Your task to perform on an android device: Open battery settings Image 0: 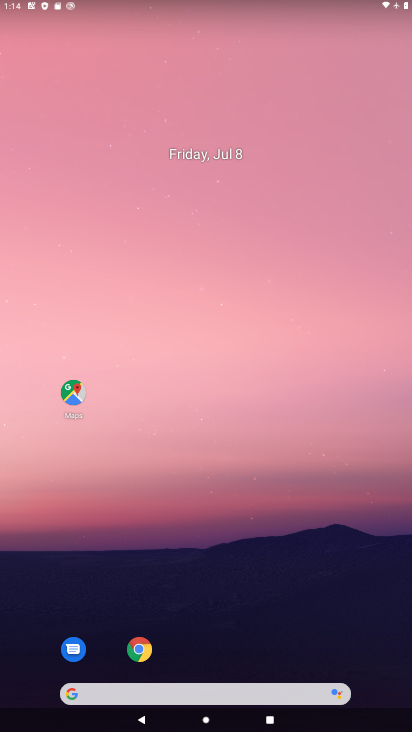
Step 0: drag from (25, 717) to (302, 99)
Your task to perform on an android device: Open battery settings Image 1: 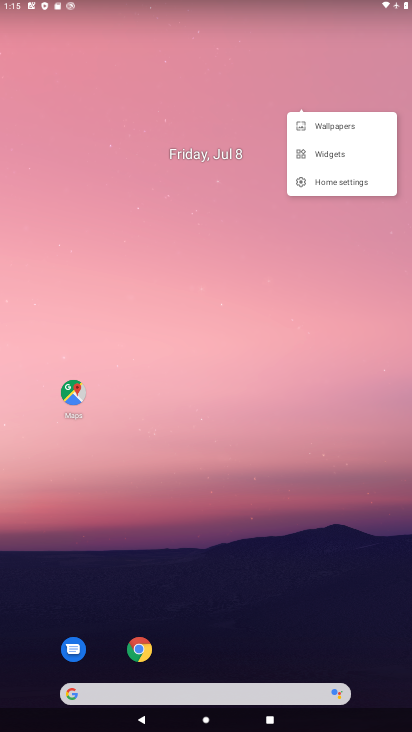
Step 1: drag from (43, 672) to (190, 319)
Your task to perform on an android device: Open battery settings Image 2: 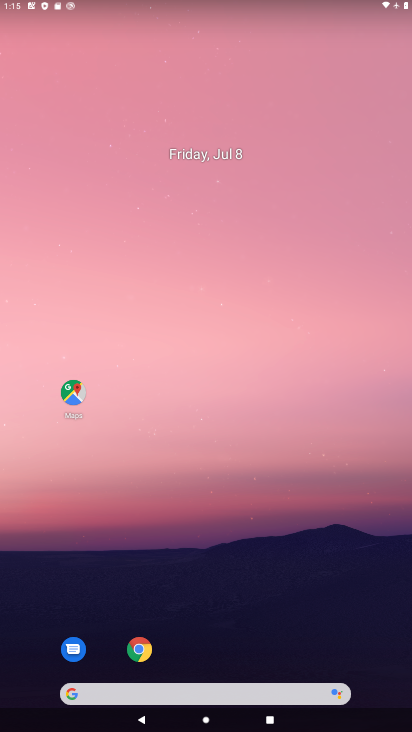
Step 2: drag from (38, 698) to (131, 133)
Your task to perform on an android device: Open battery settings Image 3: 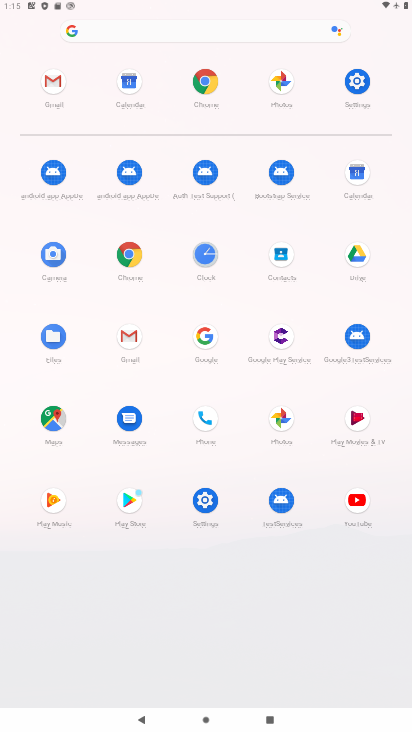
Step 3: click (183, 513)
Your task to perform on an android device: Open battery settings Image 4: 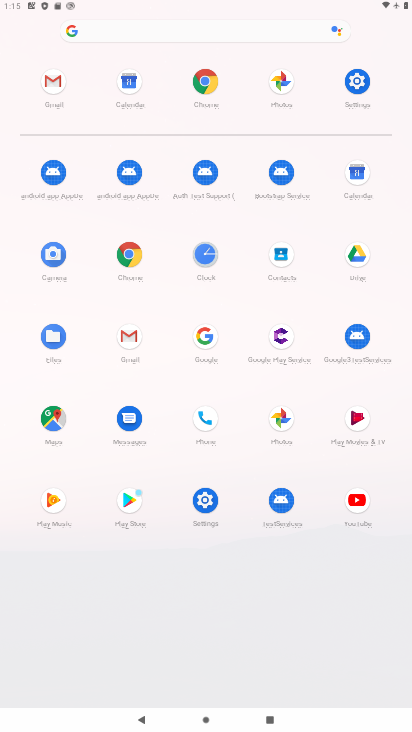
Step 4: click (195, 512)
Your task to perform on an android device: Open battery settings Image 5: 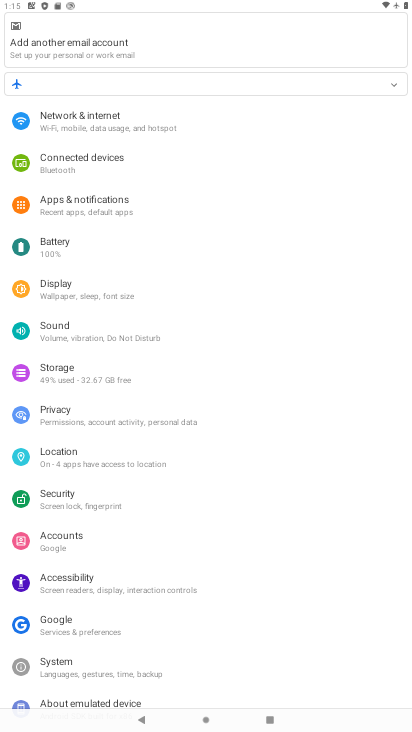
Step 5: click (59, 246)
Your task to perform on an android device: Open battery settings Image 6: 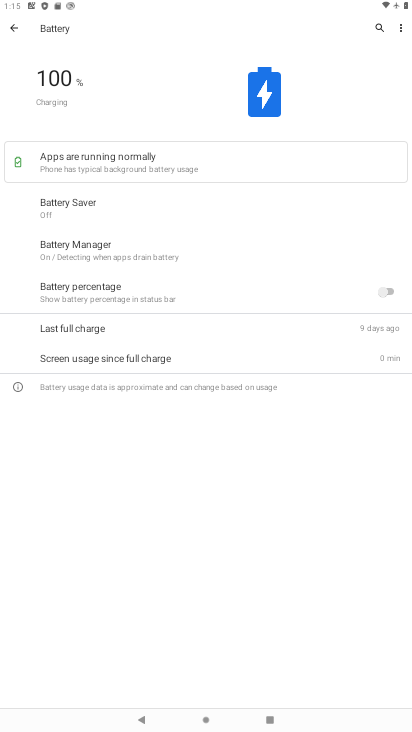
Step 6: task complete